Your task to perform on an android device: Clear the shopping cart on walmart.com. Search for macbook pro 15 inch on walmart.com, select the first entry, add it to the cart, then select checkout. Image 0: 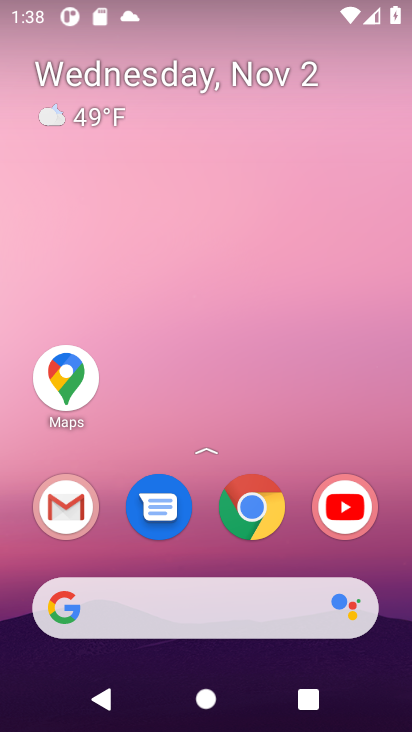
Step 0: click (206, 611)
Your task to perform on an android device: Clear the shopping cart on walmart.com. Search for macbook pro 15 inch on walmart.com, select the first entry, add it to the cart, then select checkout. Image 1: 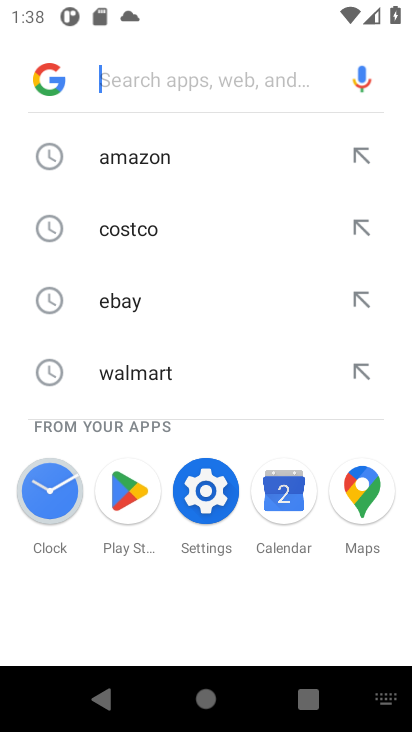
Step 1: drag from (159, 728) to (340, 649)
Your task to perform on an android device: Clear the shopping cart on walmart.com. Search for macbook pro 15 inch on walmart.com, select the first entry, add it to the cart, then select checkout. Image 2: 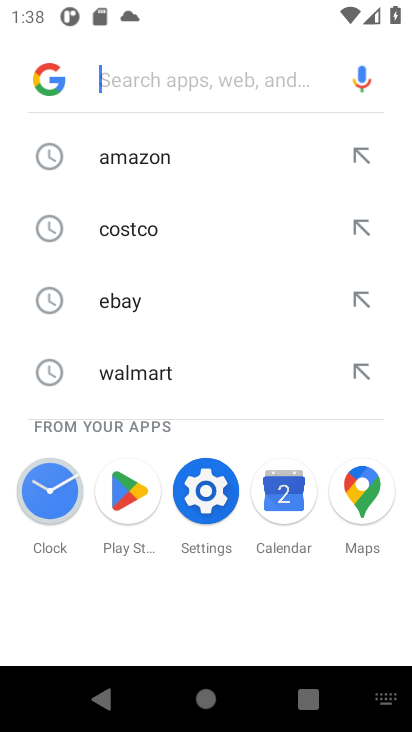
Step 2: type "walmart.com"
Your task to perform on an android device: Clear the shopping cart on walmart.com. Search for macbook pro 15 inch on walmart.com, select the first entry, add it to the cart, then select checkout. Image 3: 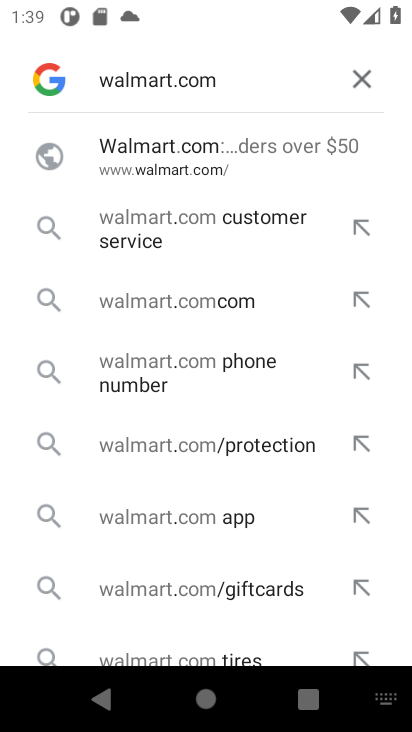
Step 3: type ""
Your task to perform on an android device: Clear the shopping cart on walmart.com. Search for macbook pro 15 inch on walmart.com, select the first entry, add it to the cart, then select checkout. Image 4: 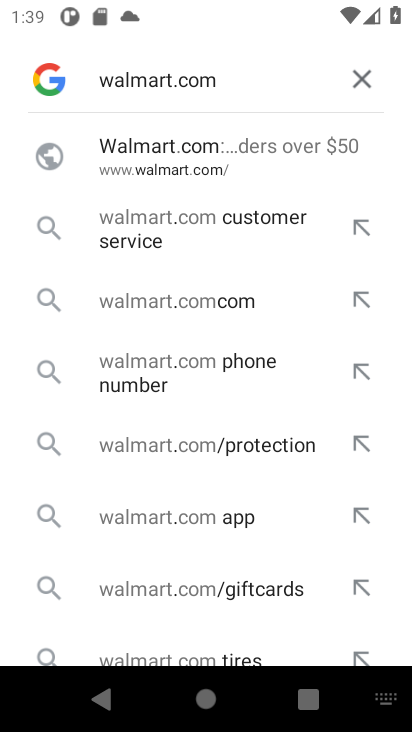
Step 4: click (156, 173)
Your task to perform on an android device: Clear the shopping cart on walmart.com. Search for macbook pro 15 inch on walmart.com, select the first entry, add it to the cart, then select checkout. Image 5: 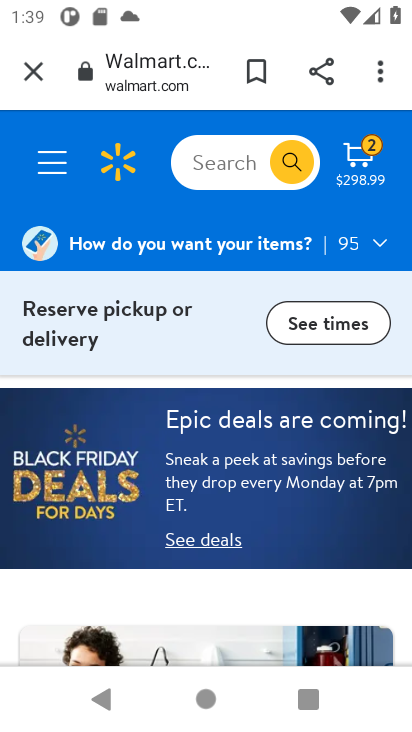
Step 5: click (220, 171)
Your task to perform on an android device: Clear the shopping cart on walmart.com. Search for macbook pro 15 inch on walmart.com, select the first entry, add it to the cart, then select checkout. Image 6: 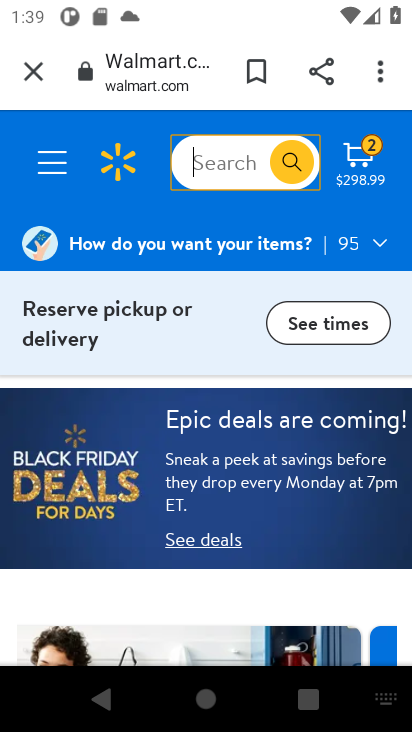
Step 6: type "macbook pro 15 inch "
Your task to perform on an android device: Clear the shopping cart on walmart.com. Search for macbook pro 15 inch on walmart.com, select the first entry, add it to the cart, then select checkout. Image 7: 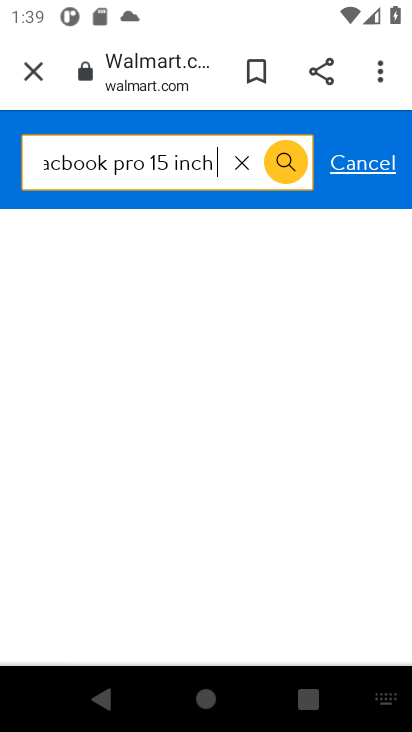
Step 7: type ""
Your task to perform on an android device: Clear the shopping cart on walmart.com. Search for macbook pro 15 inch on walmart.com, select the first entry, add it to the cart, then select checkout. Image 8: 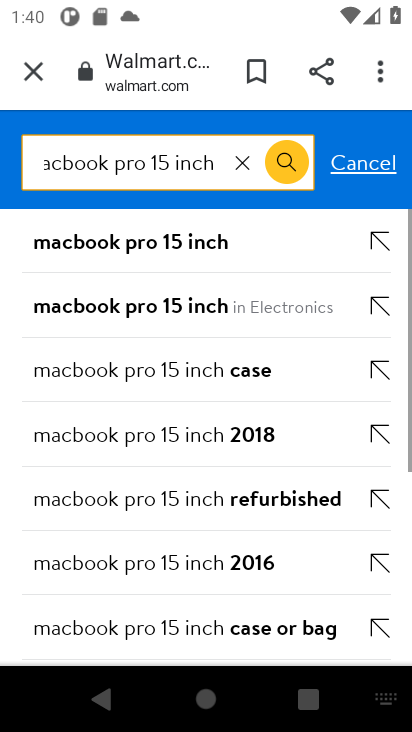
Step 8: click (285, 154)
Your task to perform on an android device: Clear the shopping cart on walmart.com. Search for macbook pro 15 inch on walmart.com, select the first entry, add it to the cart, then select checkout. Image 9: 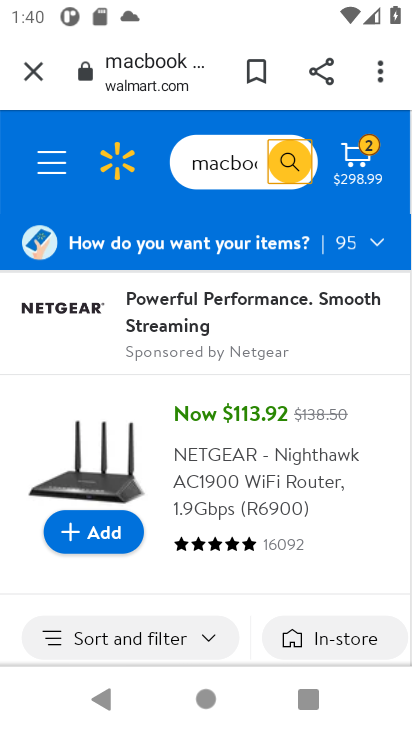
Step 9: task complete